Your task to perform on an android device: toggle notification dots Image 0: 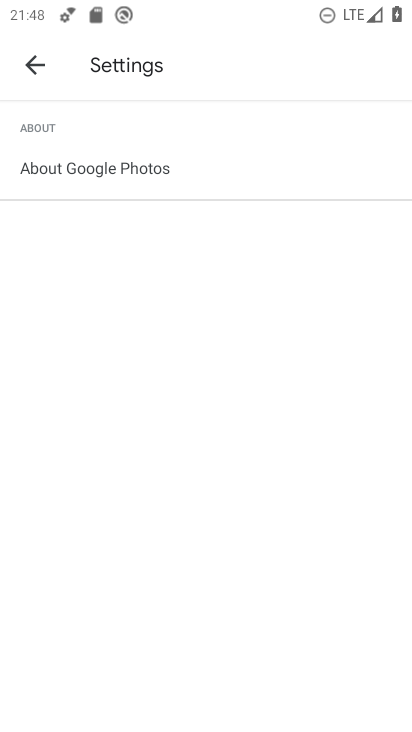
Step 0: press home button
Your task to perform on an android device: toggle notification dots Image 1: 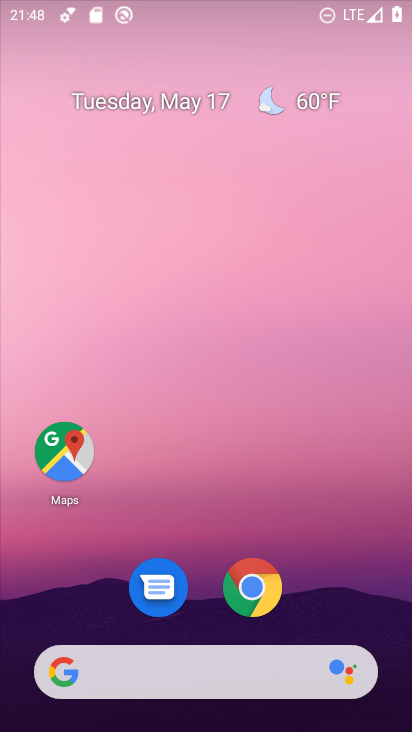
Step 1: drag from (195, 588) to (182, 222)
Your task to perform on an android device: toggle notification dots Image 2: 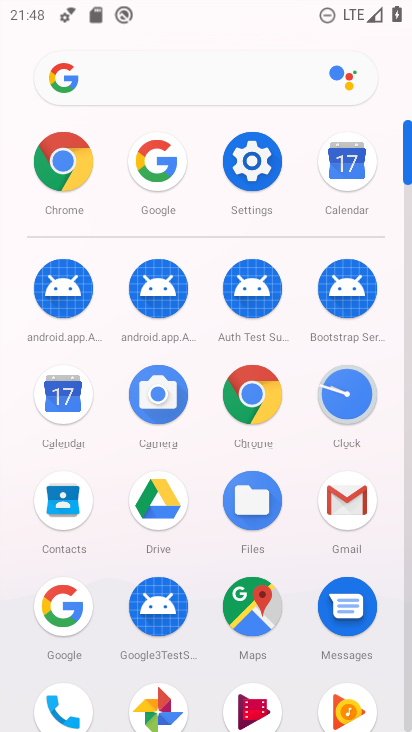
Step 2: click (241, 174)
Your task to perform on an android device: toggle notification dots Image 3: 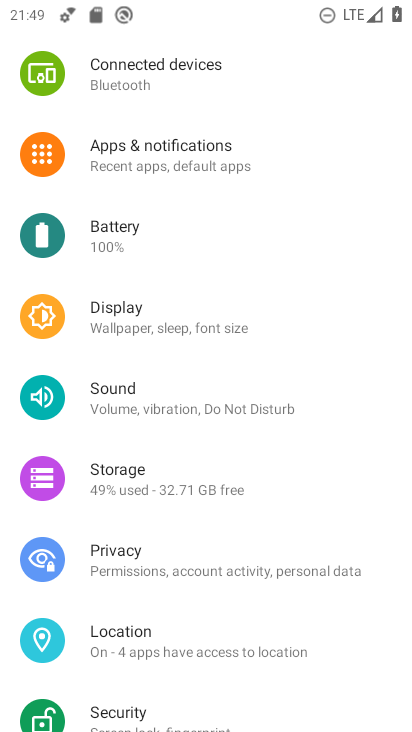
Step 3: click (170, 157)
Your task to perform on an android device: toggle notification dots Image 4: 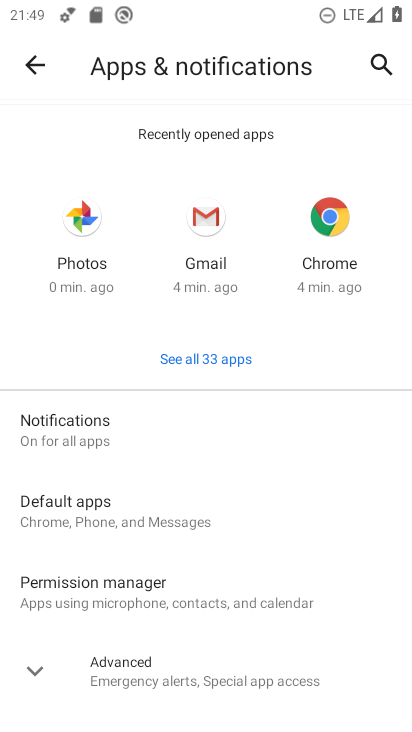
Step 4: drag from (205, 514) to (201, 262)
Your task to perform on an android device: toggle notification dots Image 5: 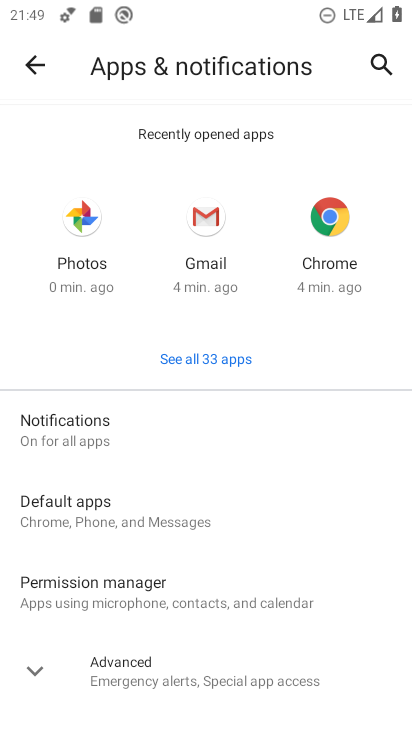
Step 5: click (172, 453)
Your task to perform on an android device: toggle notification dots Image 6: 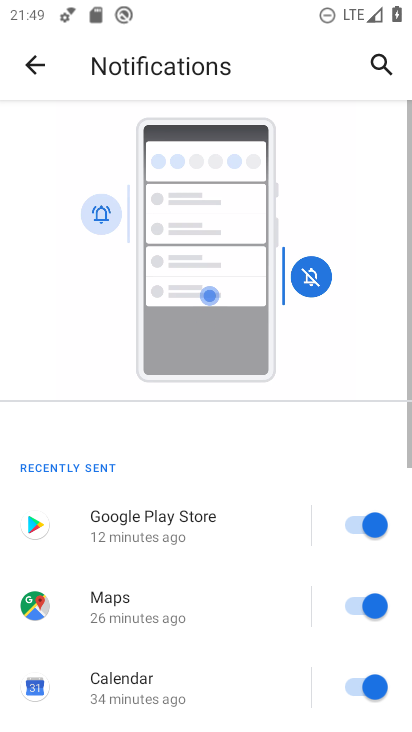
Step 6: drag from (182, 601) to (205, 25)
Your task to perform on an android device: toggle notification dots Image 7: 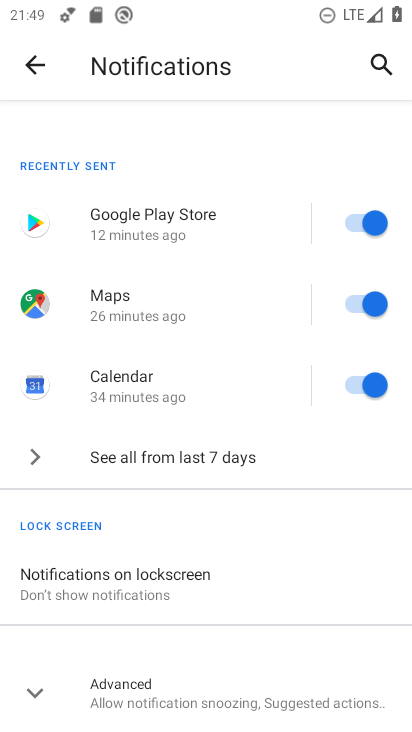
Step 7: click (169, 697)
Your task to perform on an android device: toggle notification dots Image 8: 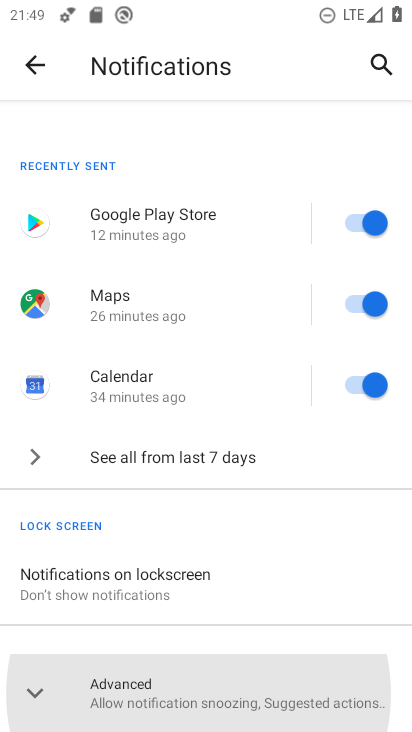
Step 8: drag from (158, 650) to (221, 200)
Your task to perform on an android device: toggle notification dots Image 9: 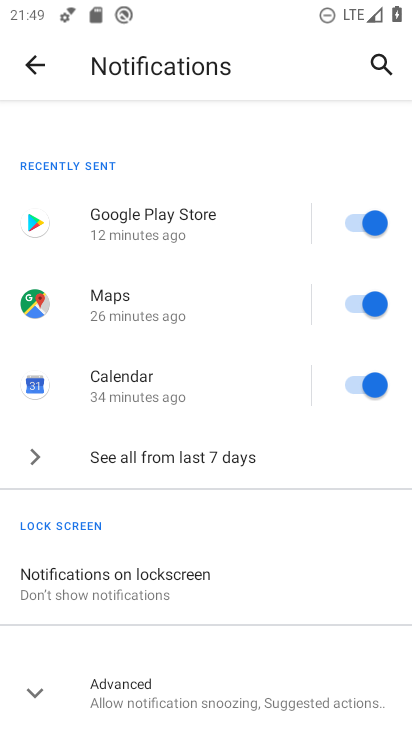
Step 9: click (186, 696)
Your task to perform on an android device: toggle notification dots Image 10: 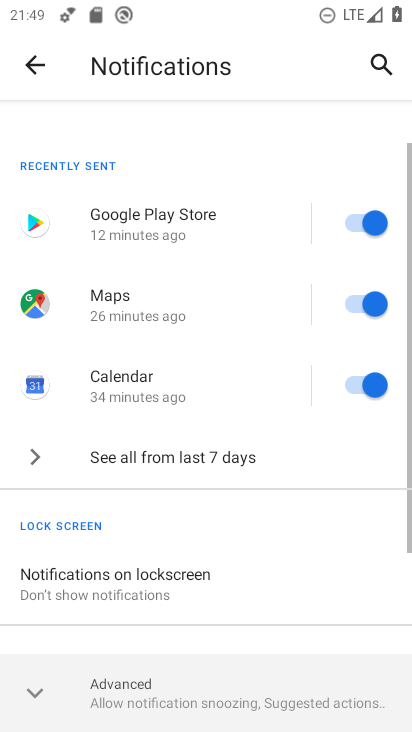
Step 10: drag from (184, 667) to (207, 213)
Your task to perform on an android device: toggle notification dots Image 11: 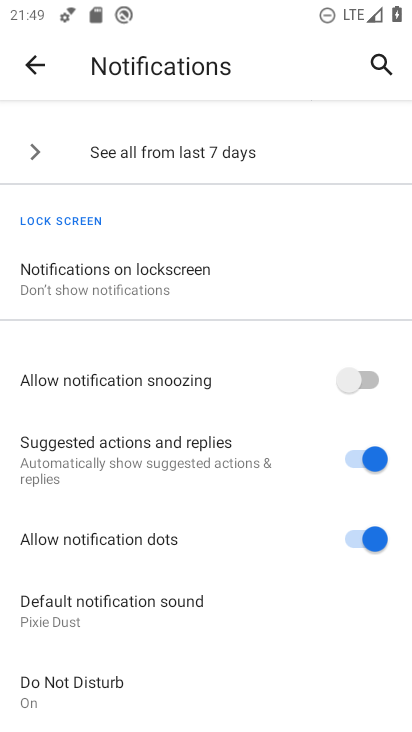
Step 11: click (372, 546)
Your task to perform on an android device: toggle notification dots Image 12: 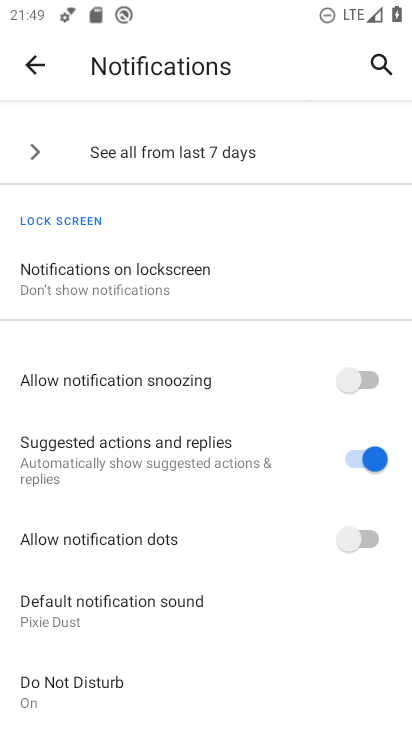
Step 12: task complete